Your task to perform on an android device: empty trash in google photos Image 0: 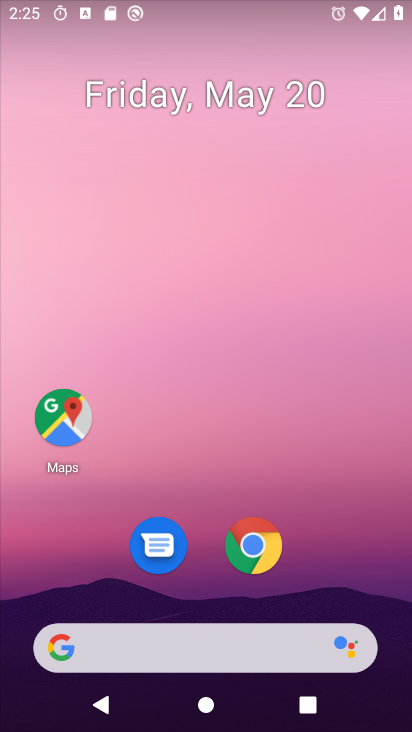
Step 0: drag from (179, 601) to (183, 92)
Your task to perform on an android device: empty trash in google photos Image 1: 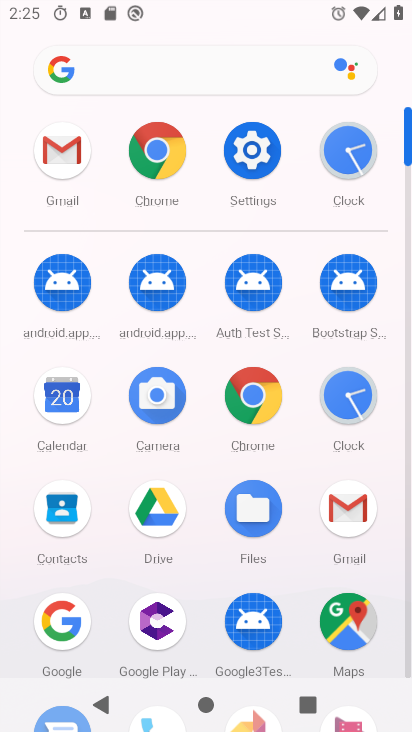
Step 1: drag from (211, 644) to (201, 481)
Your task to perform on an android device: empty trash in google photos Image 2: 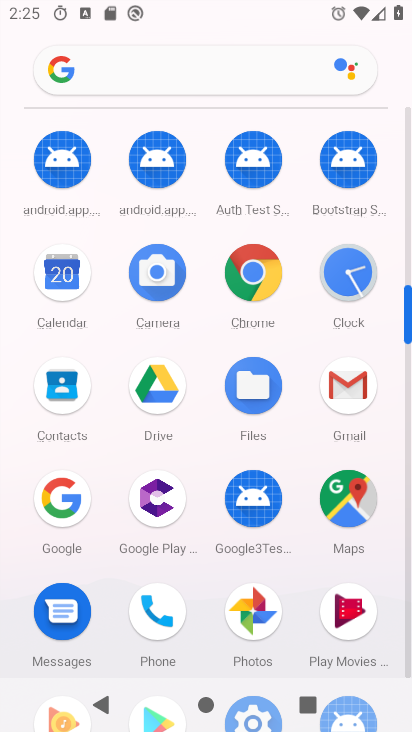
Step 2: click (251, 610)
Your task to perform on an android device: empty trash in google photos Image 3: 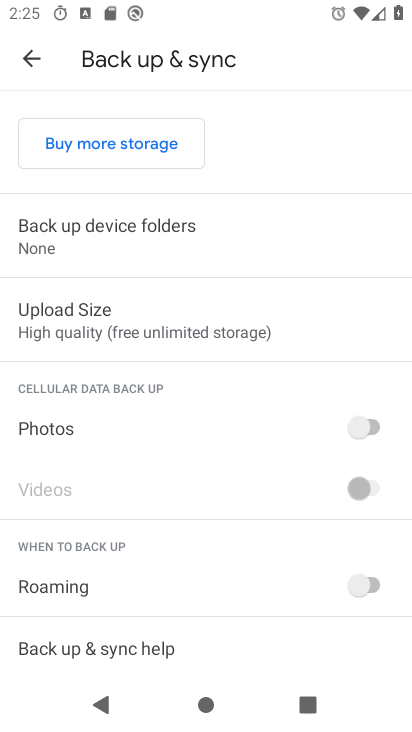
Step 3: drag from (208, 212) to (174, 630)
Your task to perform on an android device: empty trash in google photos Image 4: 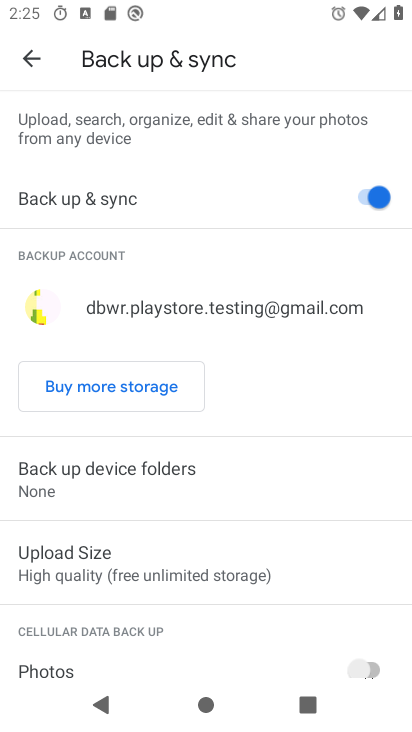
Step 4: drag from (220, 633) to (260, 325)
Your task to perform on an android device: empty trash in google photos Image 5: 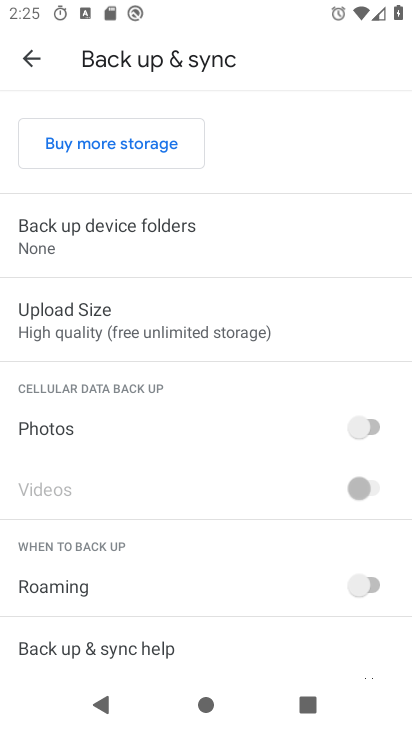
Step 5: drag from (189, 642) to (174, 323)
Your task to perform on an android device: empty trash in google photos Image 6: 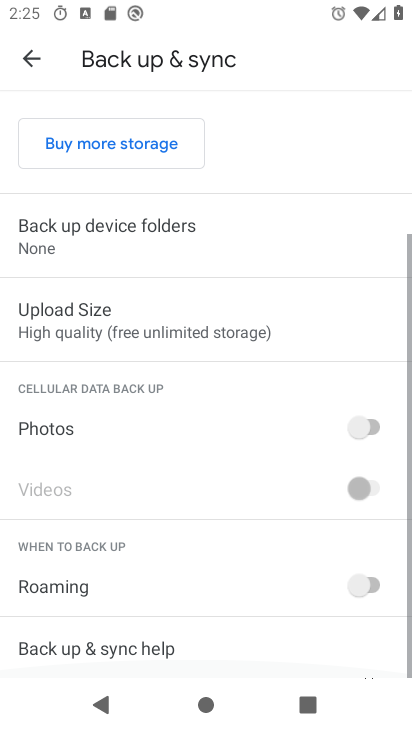
Step 6: drag from (167, 272) to (171, 724)
Your task to perform on an android device: empty trash in google photos Image 7: 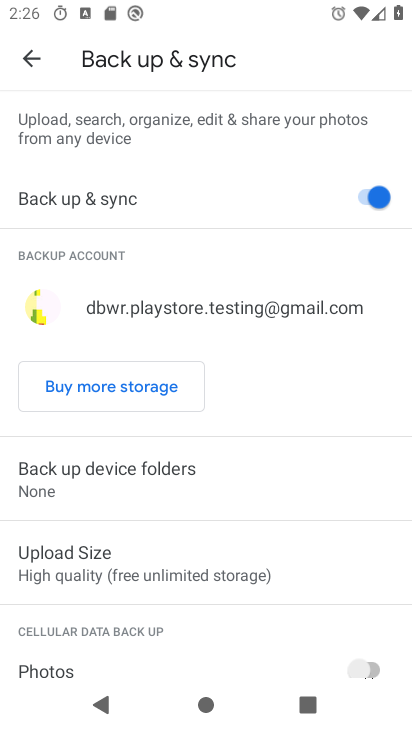
Step 7: press back button
Your task to perform on an android device: empty trash in google photos Image 8: 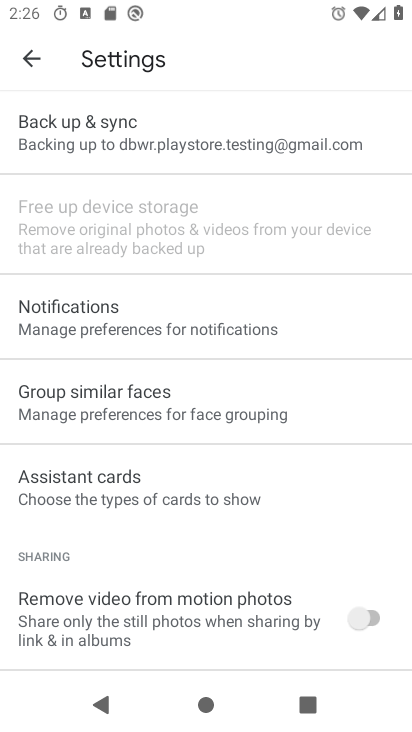
Step 8: drag from (172, 379) to (177, 654)
Your task to perform on an android device: empty trash in google photos Image 9: 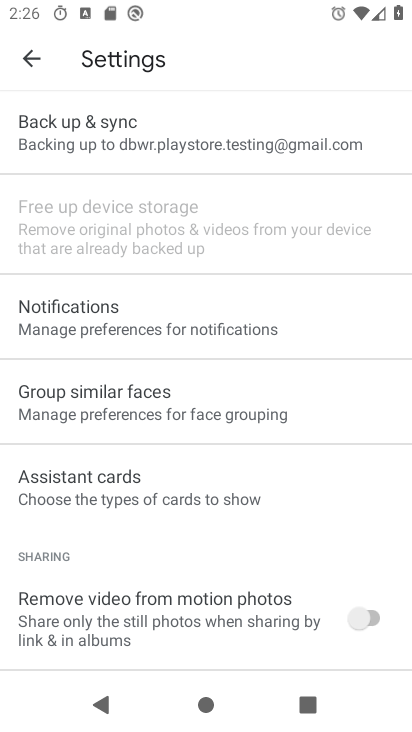
Step 9: press back button
Your task to perform on an android device: empty trash in google photos Image 10: 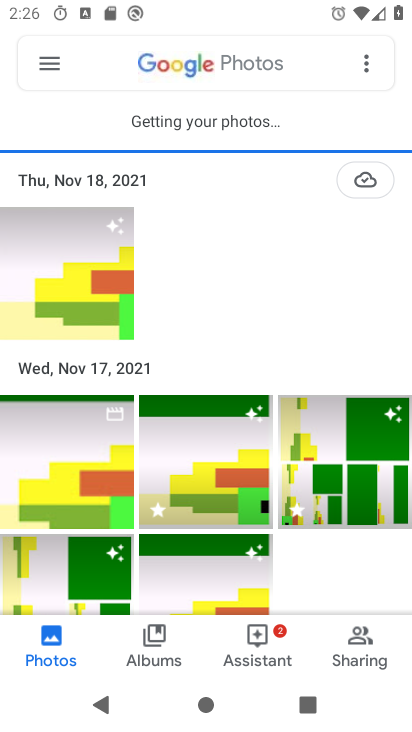
Step 10: click (357, 637)
Your task to perform on an android device: empty trash in google photos Image 11: 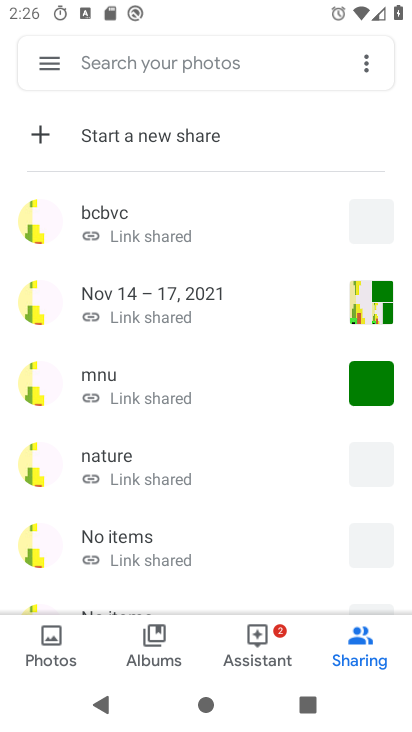
Step 11: click (50, 62)
Your task to perform on an android device: empty trash in google photos Image 12: 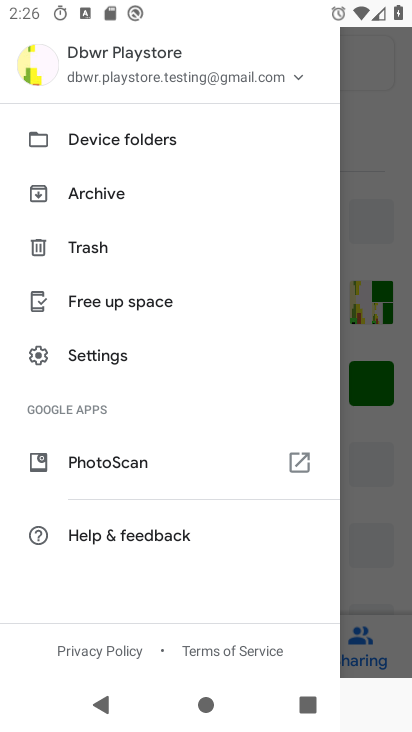
Step 12: click (103, 247)
Your task to perform on an android device: empty trash in google photos Image 13: 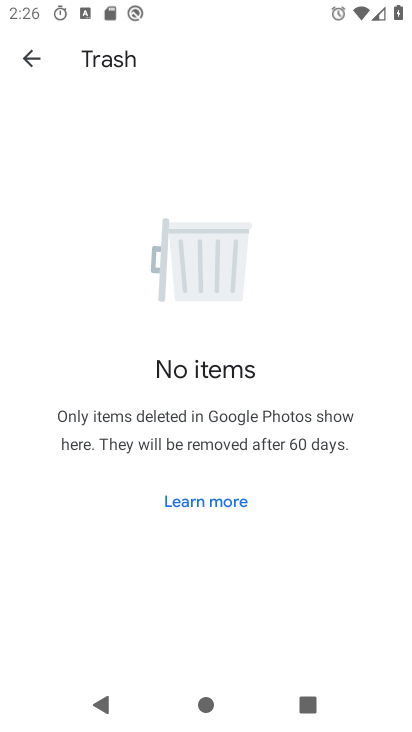
Step 13: task complete